Your task to perform on an android device: Open wifi settings Image 0: 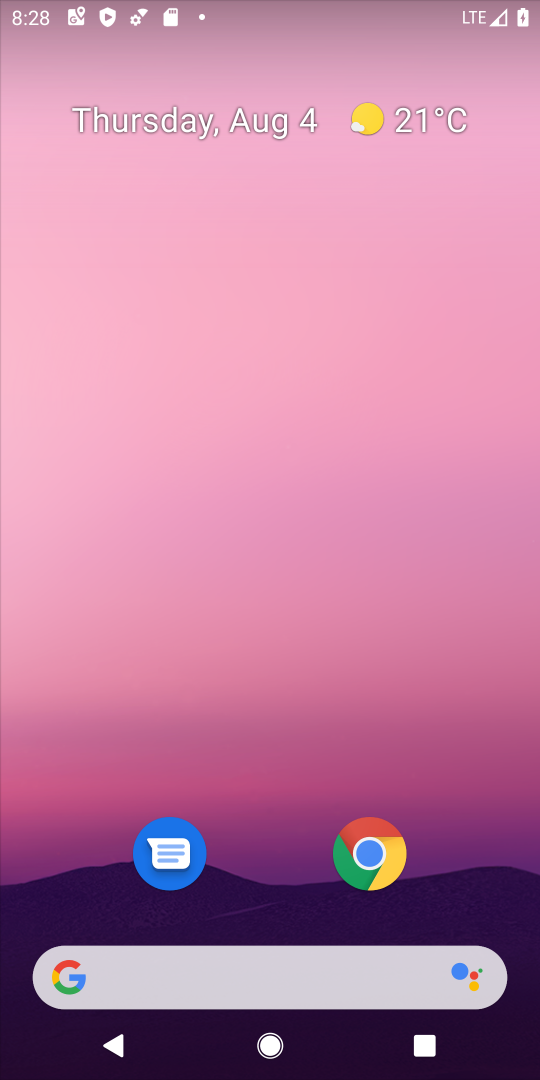
Step 0: drag from (218, 910) to (222, 131)
Your task to perform on an android device: Open wifi settings Image 1: 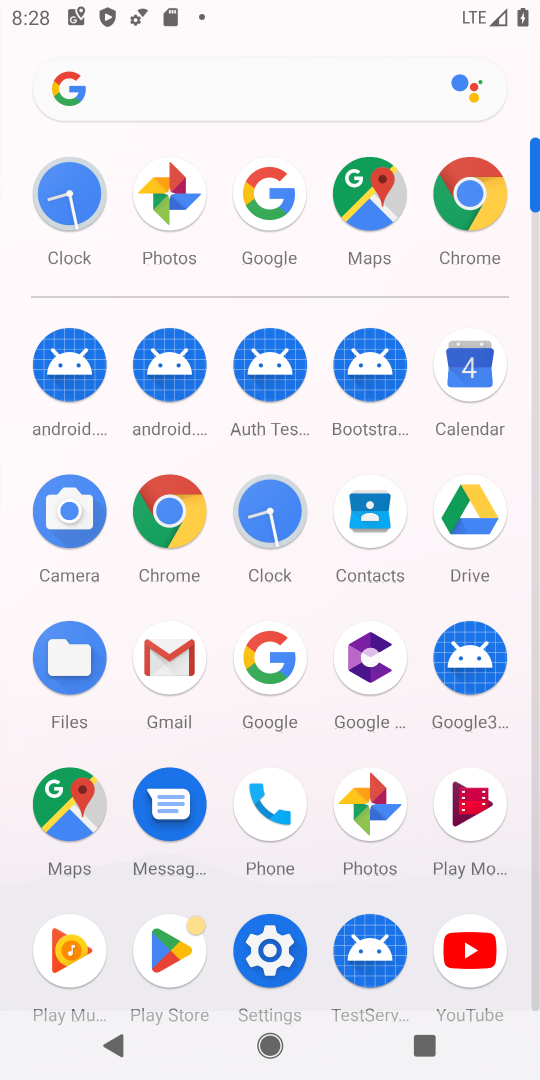
Step 1: click (261, 948)
Your task to perform on an android device: Open wifi settings Image 2: 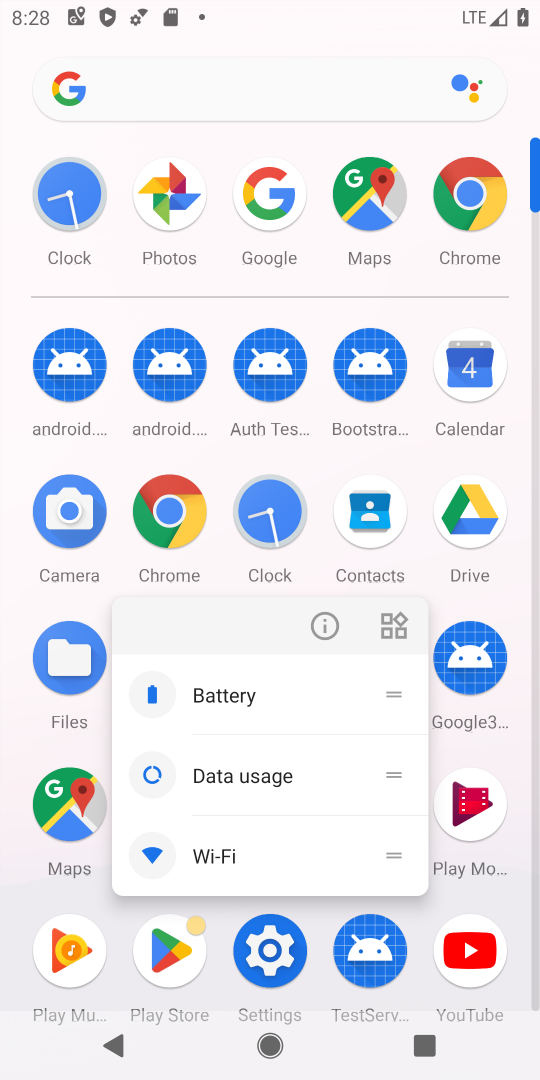
Step 2: click (268, 957)
Your task to perform on an android device: Open wifi settings Image 3: 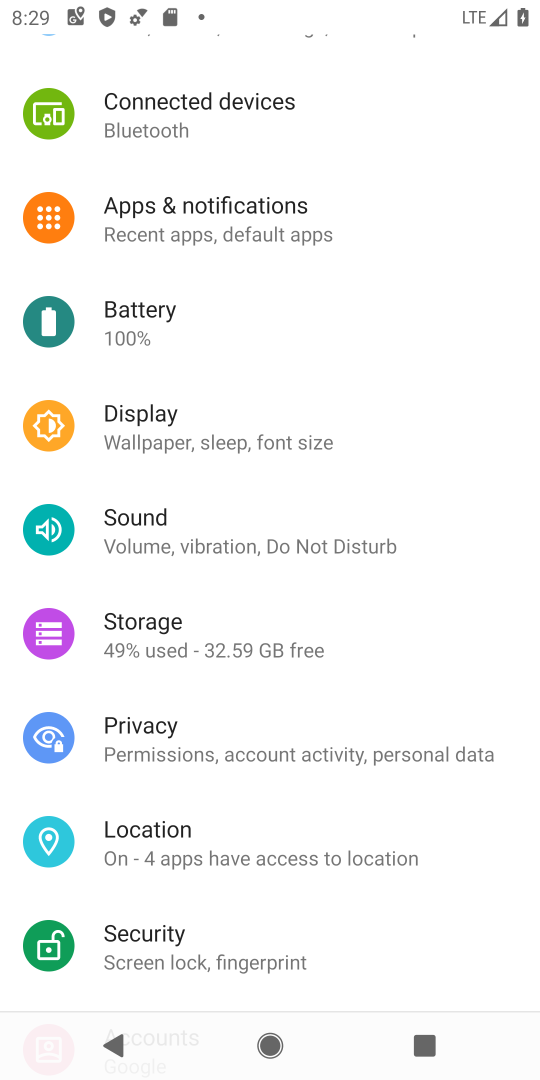
Step 3: drag from (182, 123) to (239, 695)
Your task to perform on an android device: Open wifi settings Image 4: 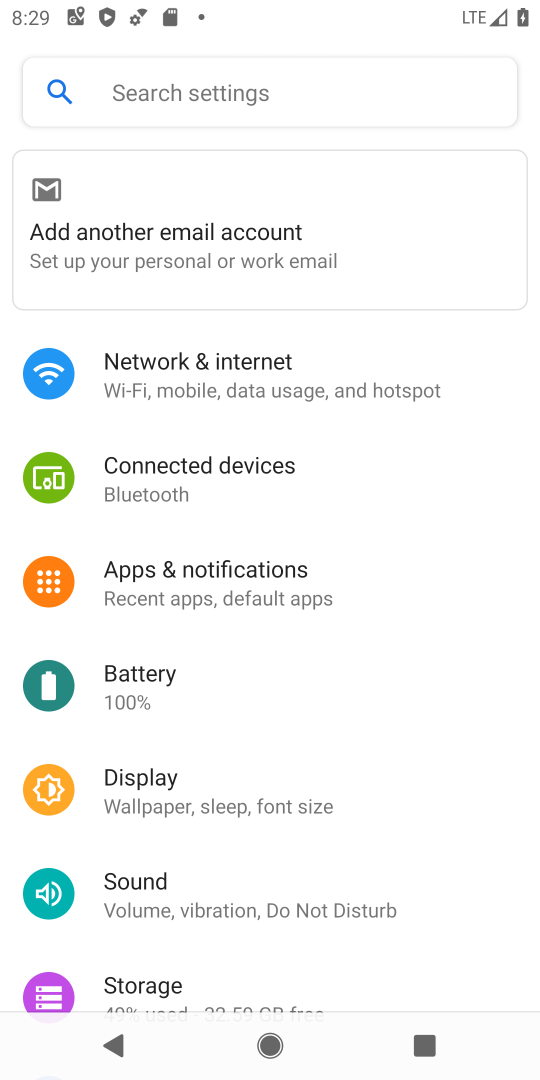
Step 4: click (213, 367)
Your task to perform on an android device: Open wifi settings Image 5: 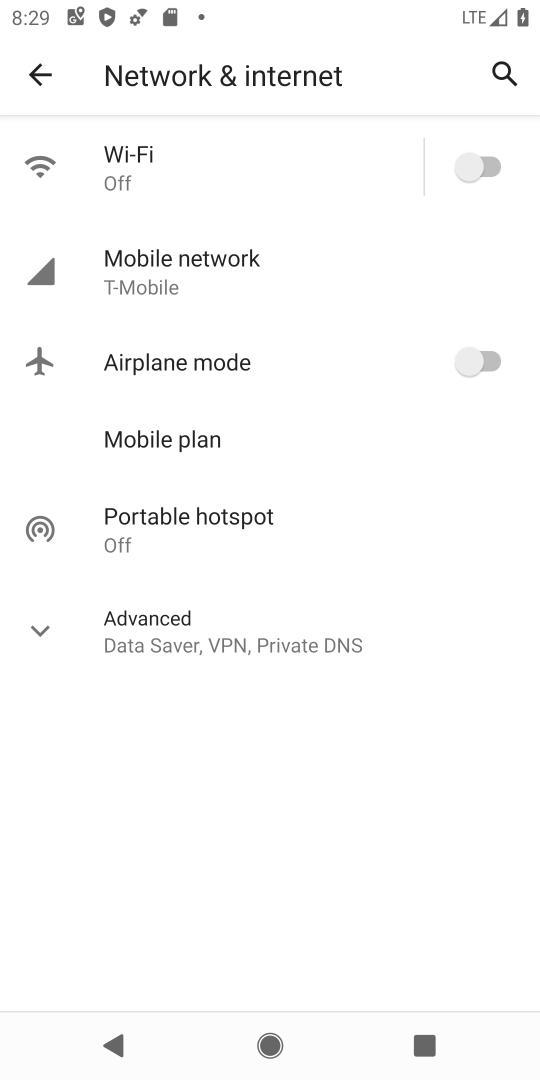
Step 5: click (139, 174)
Your task to perform on an android device: Open wifi settings Image 6: 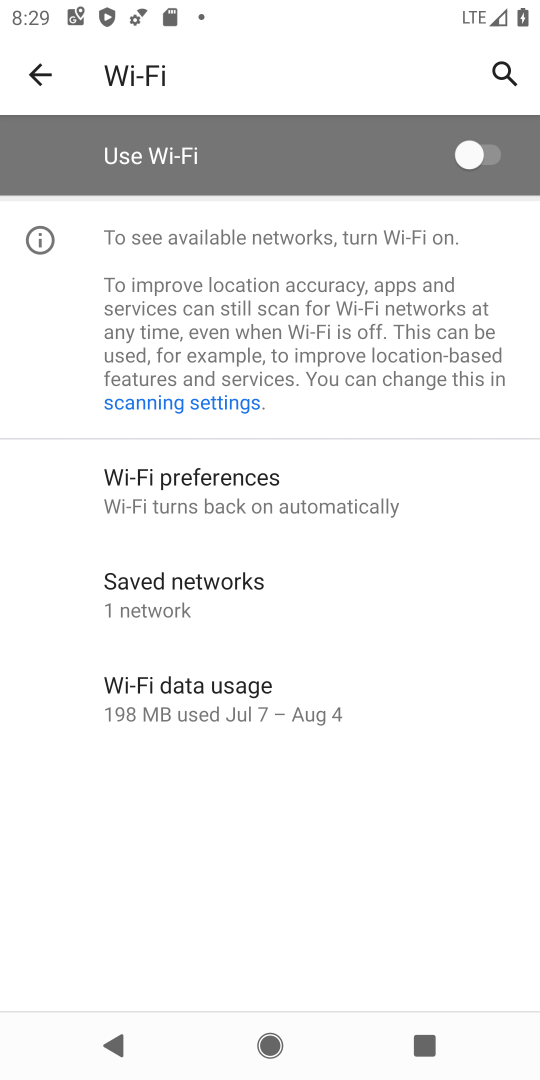
Step 6: click (472, 160)
Your task to perform on an android device: Open wifi settings Image 7: 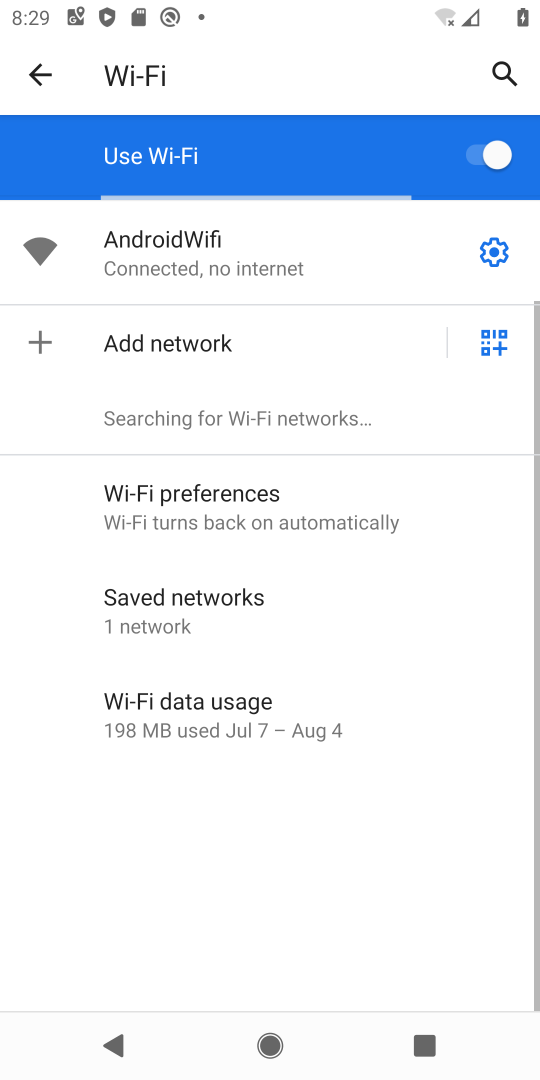
Step 7: click (496, 249)
Your task to perform on an android device: Open wifi settings Image 8: 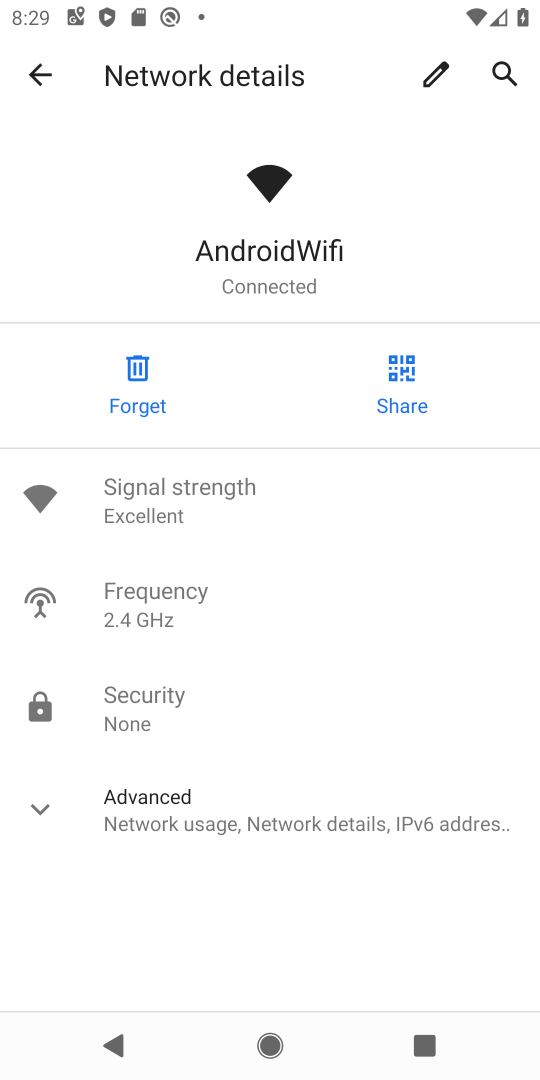
Step 8: click (80, 802)
Your task to perform on an android device: Open wifi settings Image 9: 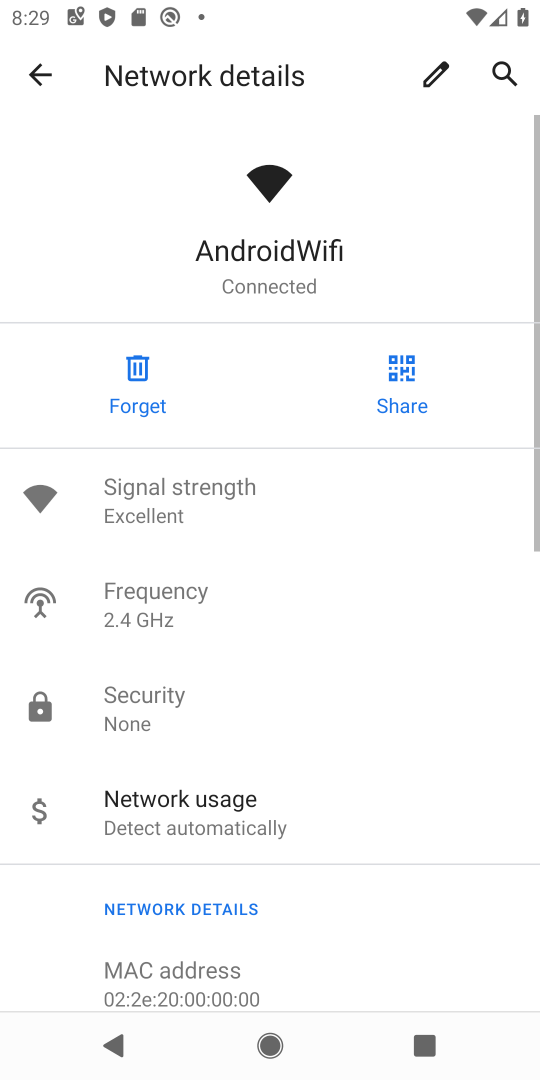
Step 9: task complete